Your task to perform on an android device: turn on sleep mode Image 0: 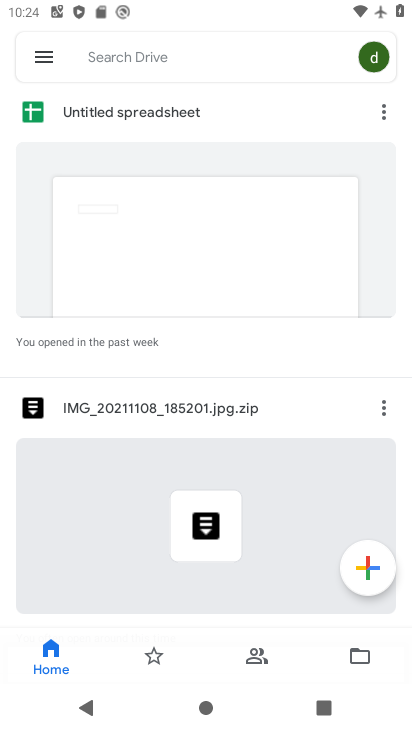
Step 0: press home button
Your task to perform on an android device: turn on sleep mode Image 1: 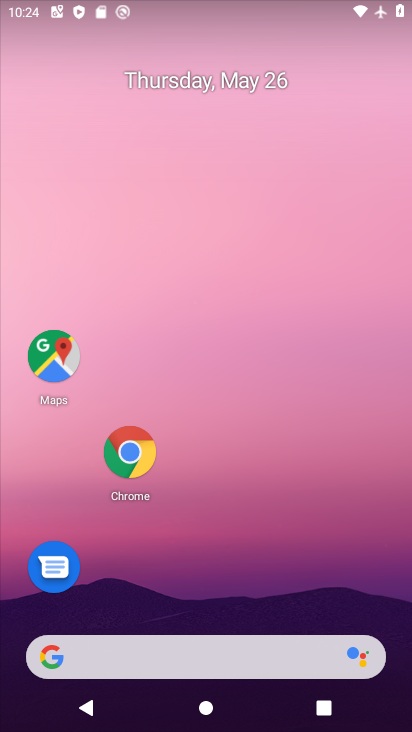
Step 1: drag from (212, 663) to (383, 111)
Your task to perform on an android device: turn on sleep mode Image 2: 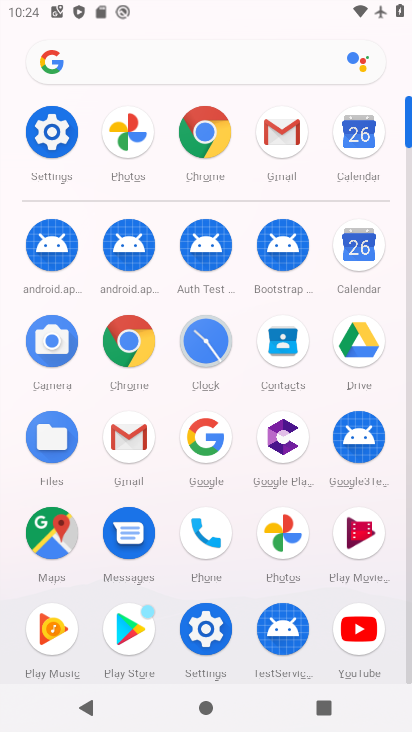
Step 2: click (55, 137)
Your task to perform on an android device: turn on sleep mode Image 3: 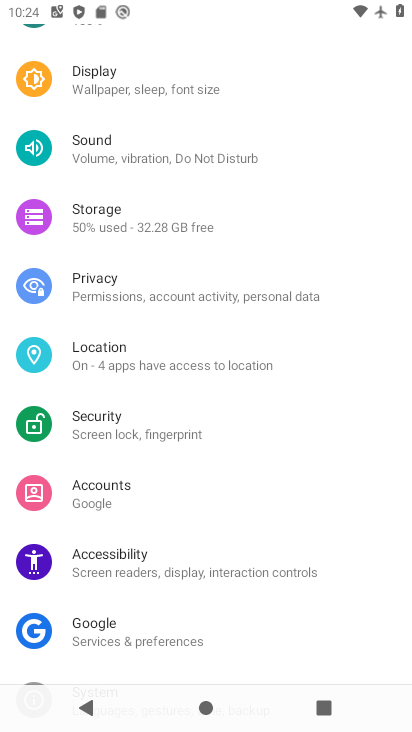
Step 3: click (183, 93)
Your task to perform on an android device: turn on sleep mode Image 4: 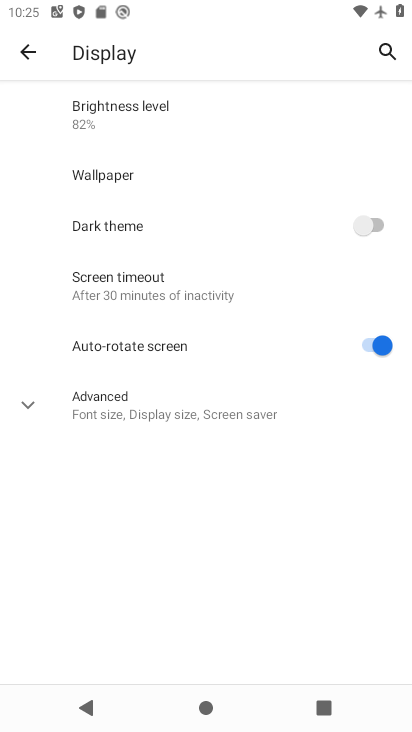
Step 4: task complete